Your task to perform on an android device: What's the weather today? Image 0: 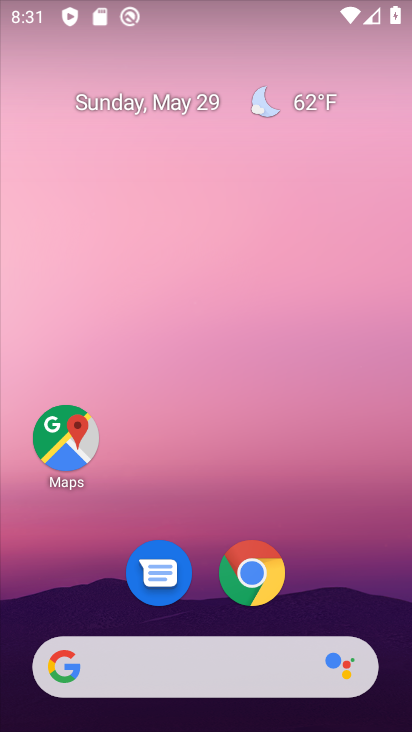
Step 0: click (204, 673)
Your task to perform on an android device: What's the weather today? Image 1: 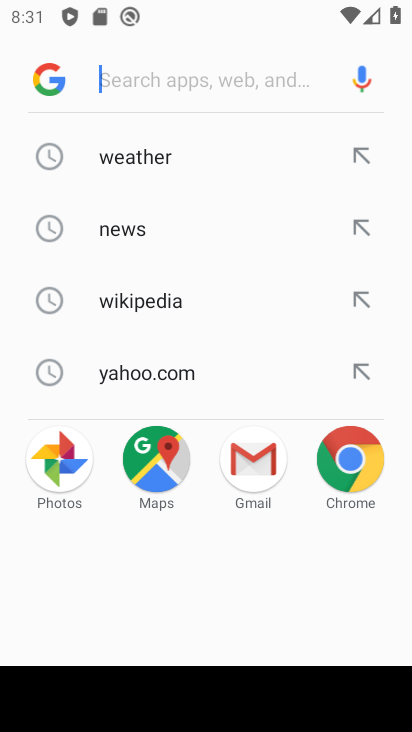
Step 1: type " weather today"
Your task to perform on an android device: What's the weather today? Image 2: 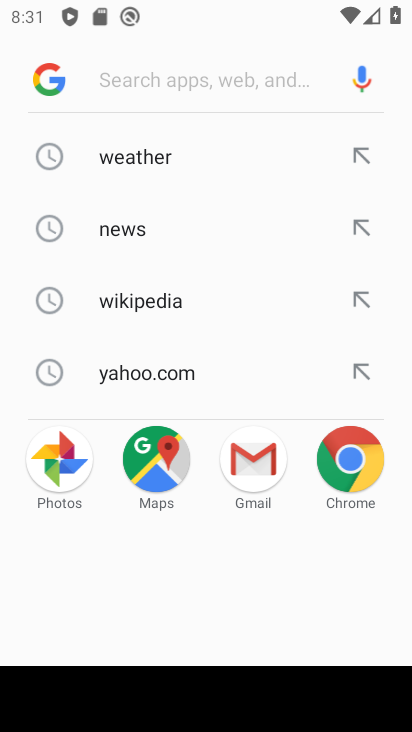
Step 2: click (181, 86)
Your task to perform on an android device: What's the weather today? Image 3: 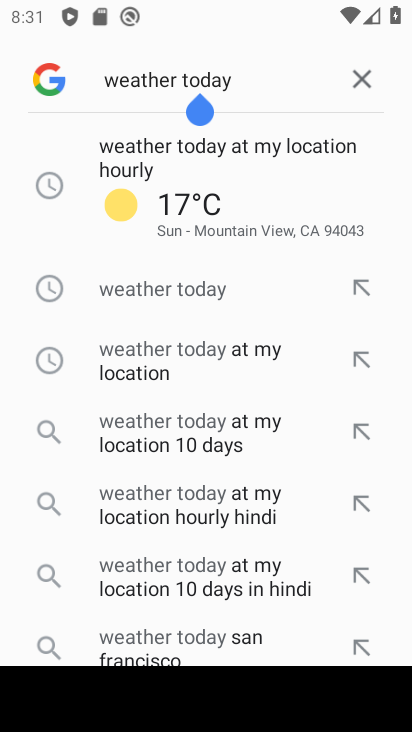
Step 3: click (192, 291)
Your task to perform on an android device: What's the weather today? Image 4: 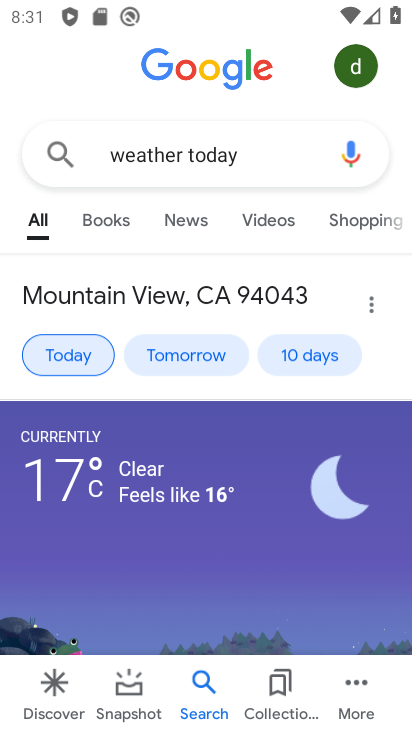
Step 4: task complete